Your task to perform on an android device: Go to Yahoo.com Image 0: 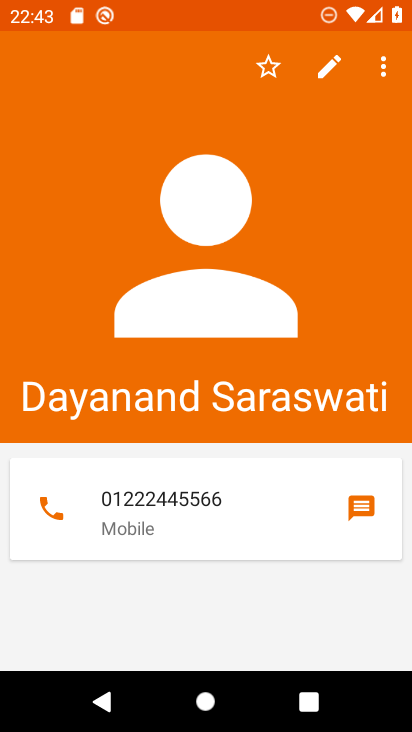
Step 0: press home button
Your task to perform on an android device: Go to Yahoo.com Image 1: 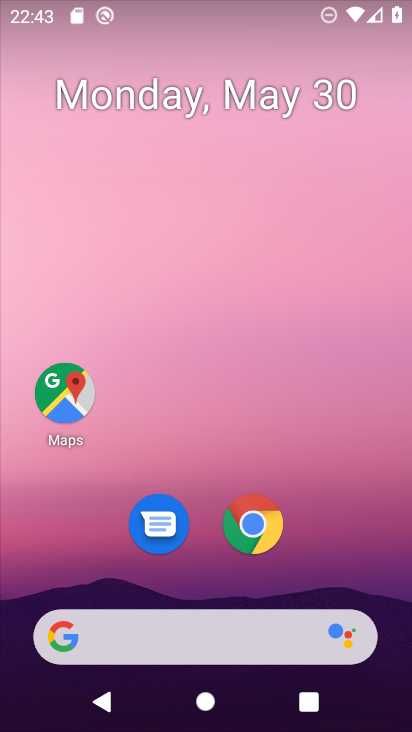
Step 1: click (257, 644)
Your task to perform on an android device: Go to Yahoo.com Image 2: 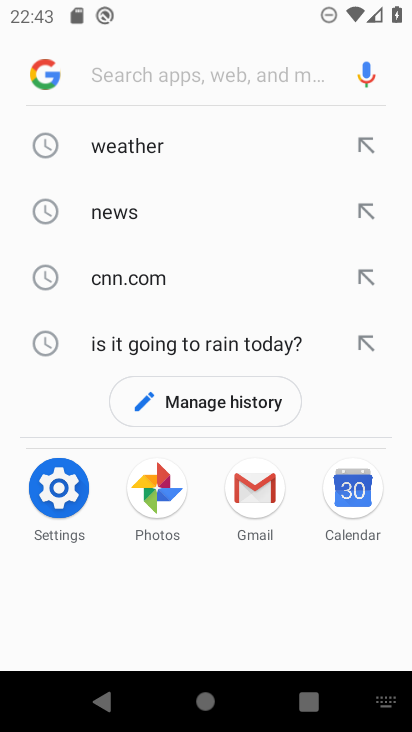
Step 2: type "yahoo.com"
Your task to perform on an android device: Go to Yahoo.com Image 3: 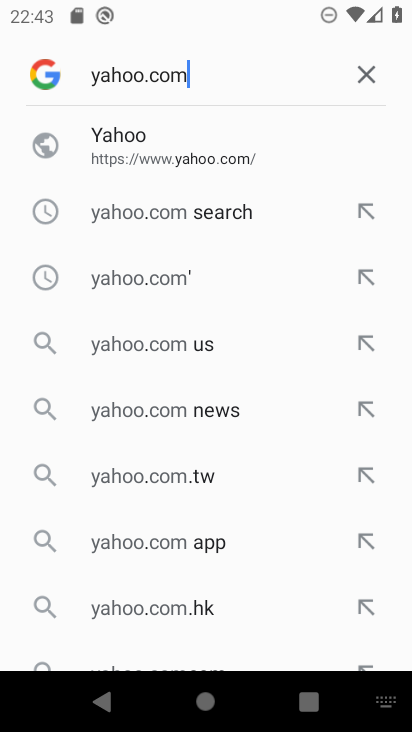
Step 3: click (137, 148)
Your task to perform on an android device: Go to Yahoo.com Image 4: 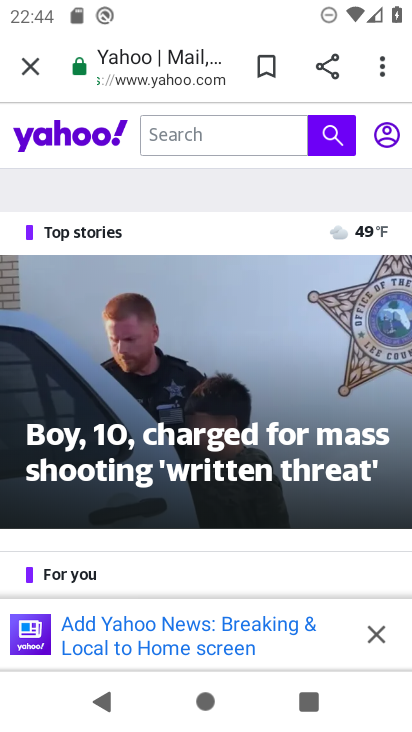
Step 4: task complete